Your task to perform on an android device: set the timer Image 0: 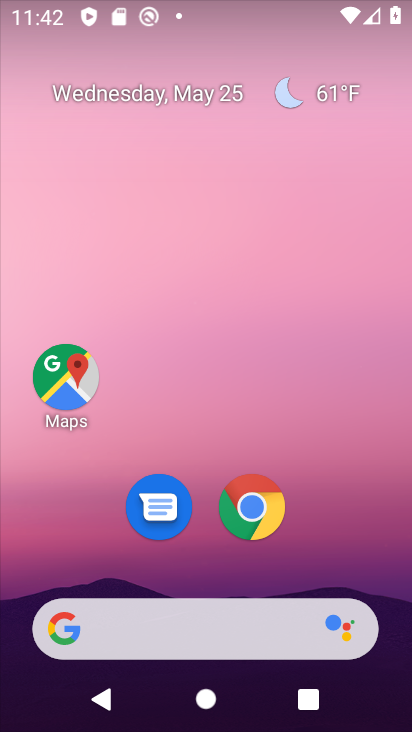
Step 0: drag from (359, 553) to (339, 8)
Your task to perform on an android device: set the timer Image 1: 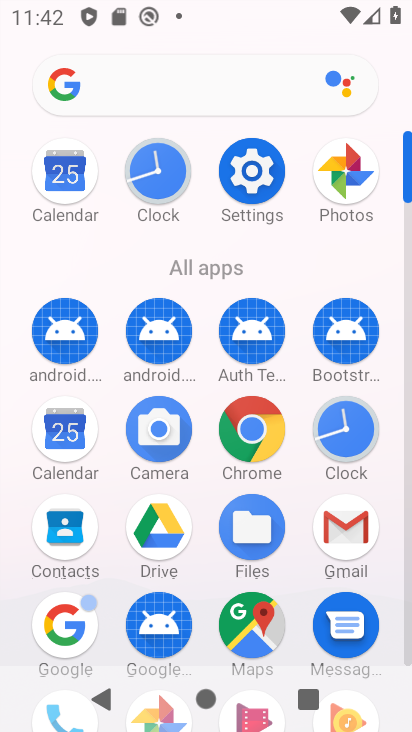
Step 1: click (143, 180)
Your task to perform on an android device: set the timer Image 2: 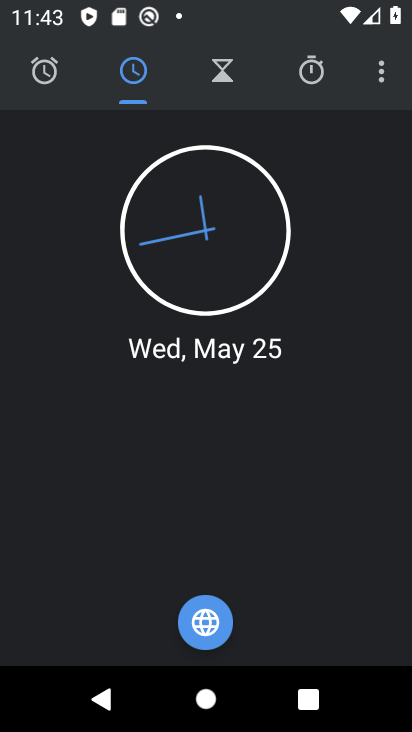
Step 2: click (254, 83)
Your task to perform on an android device: set the timer Image 3: 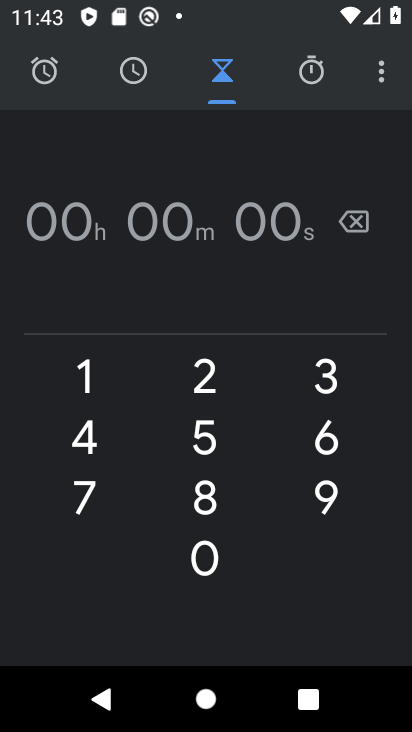
Step 3: task complete